Your task to perform on an android device: open app "Life360: Find Family & Friends" (install if not already installed) Image 0: 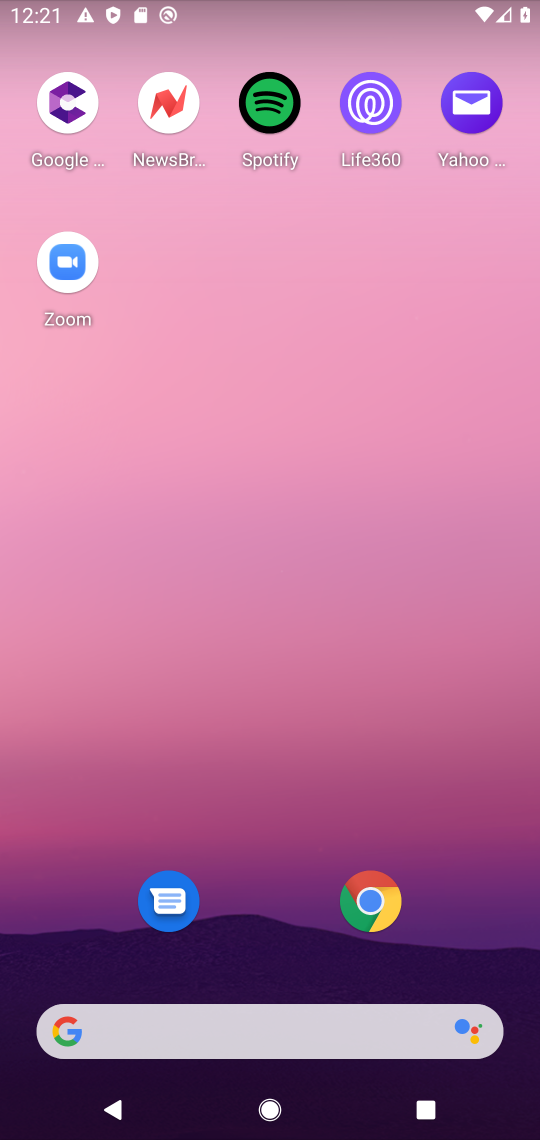
Step 0: drag from (242, 1007) to (315, 156)
Your task to perform on an android device: open app "Life360: Find Family & Friends" (install if not already installed) Image 1: 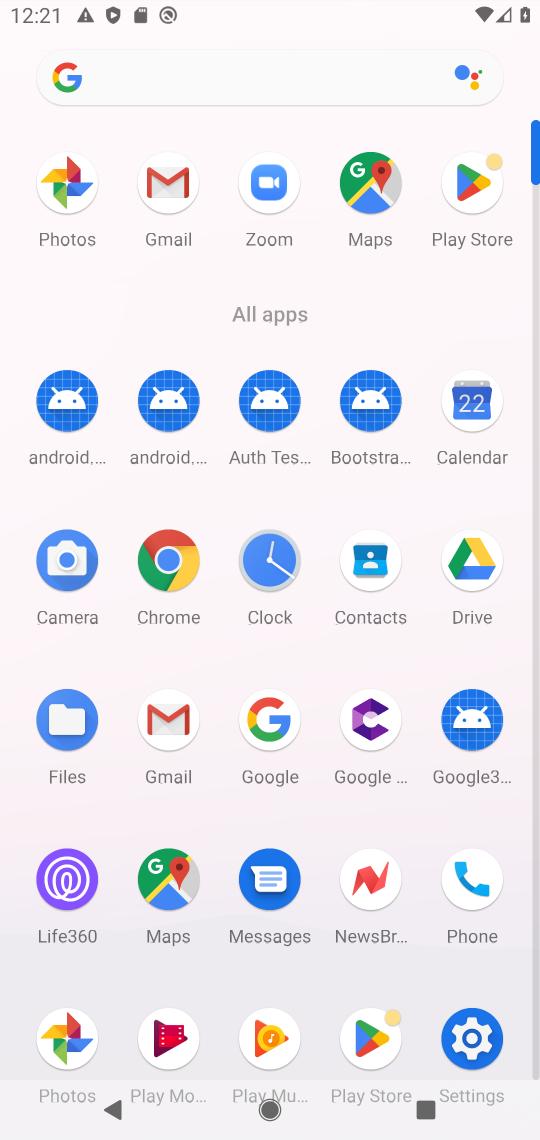
Step 1: click (485, 182)
Your task to perform on an android device: open app "Life360: Find Family & Friends" (install if not already installed) Image 2: 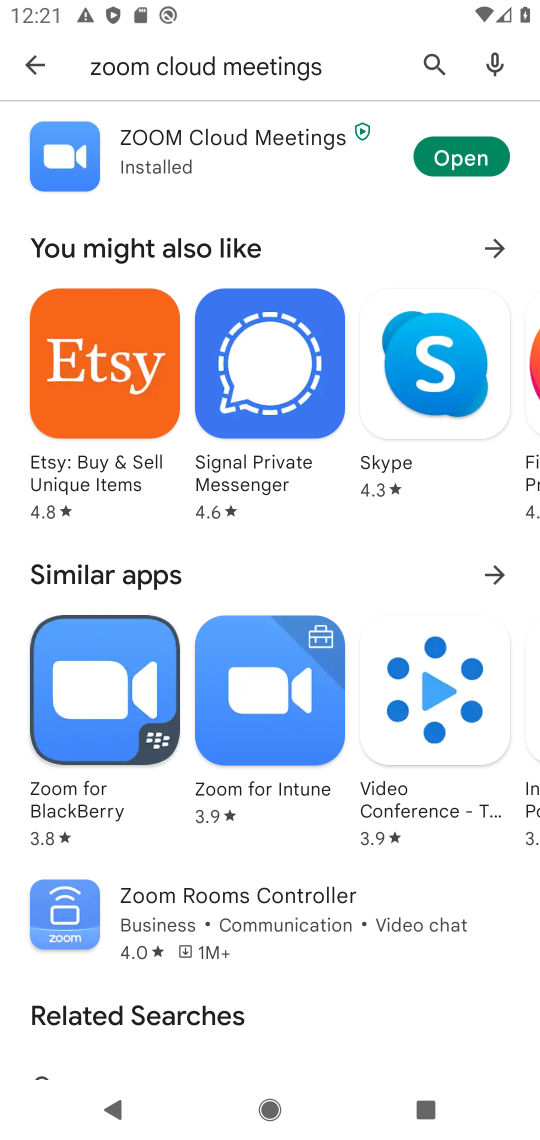
Step 2: click (434, 58)
Your task to perform on an android device: open app "Life360: Find Family & Friends" (install if not already installed) Image 3: 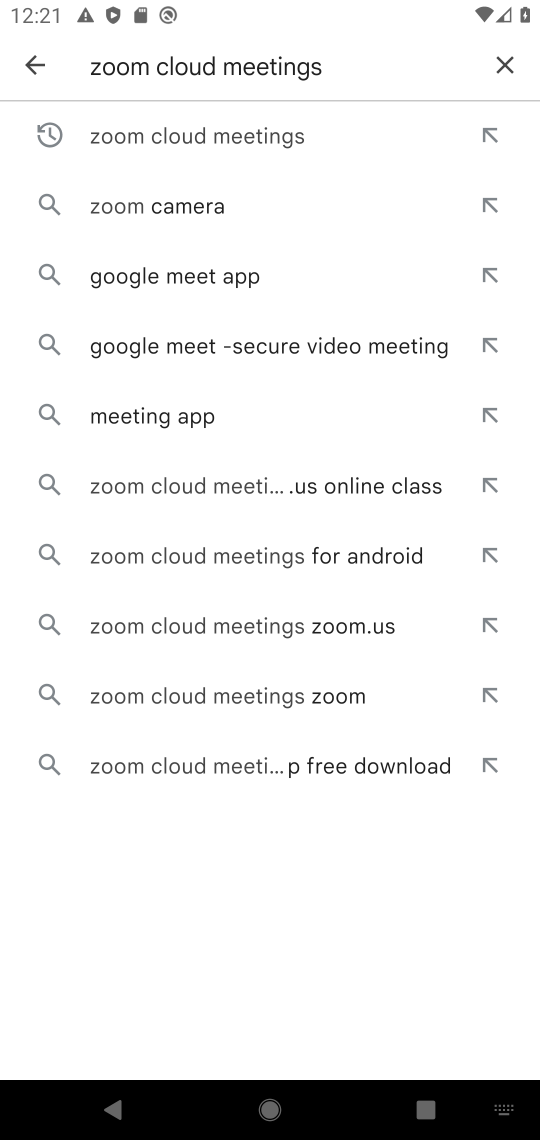
Step 3: click (502, 60)
Your task to perform on an android device: open app "Life360: Find Family & Friends" (install if not already installed) Image 4: 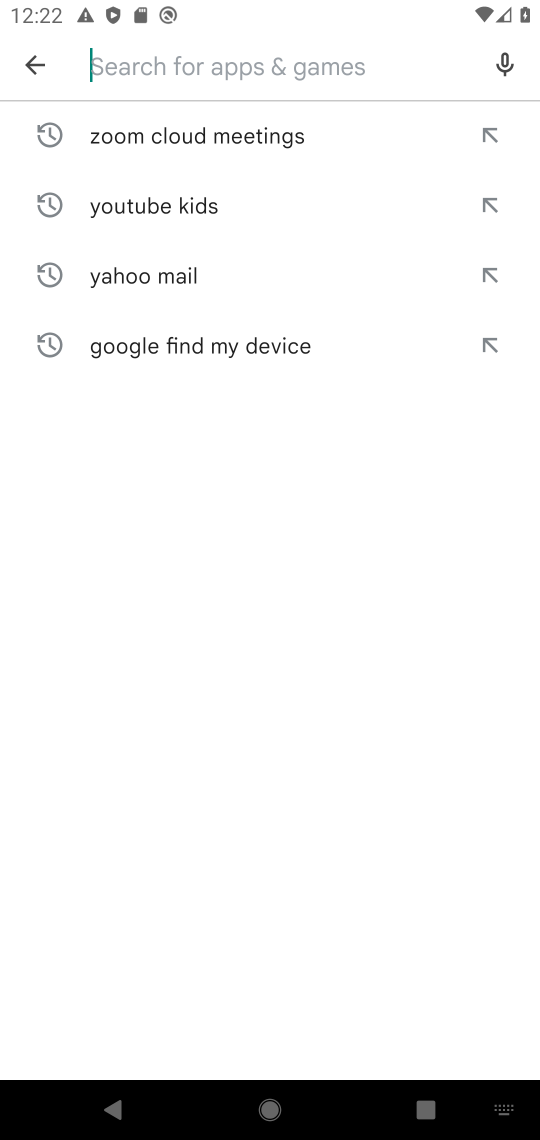
Step 4: type "life360"
Your task to perform on an android device: open app "Life360: Find Family & Friends" (install if not already installed) Image 5: 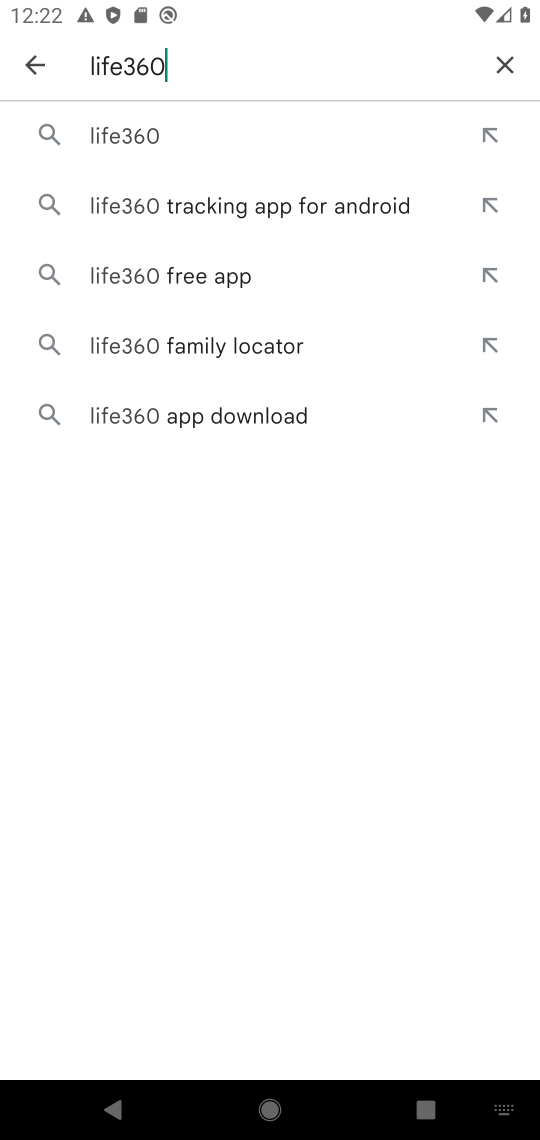
Step 5: click (115, 142)
Your task to perform on an android device: open app "Life360: Find Family & Friends" (install if not already installed) Image 6: 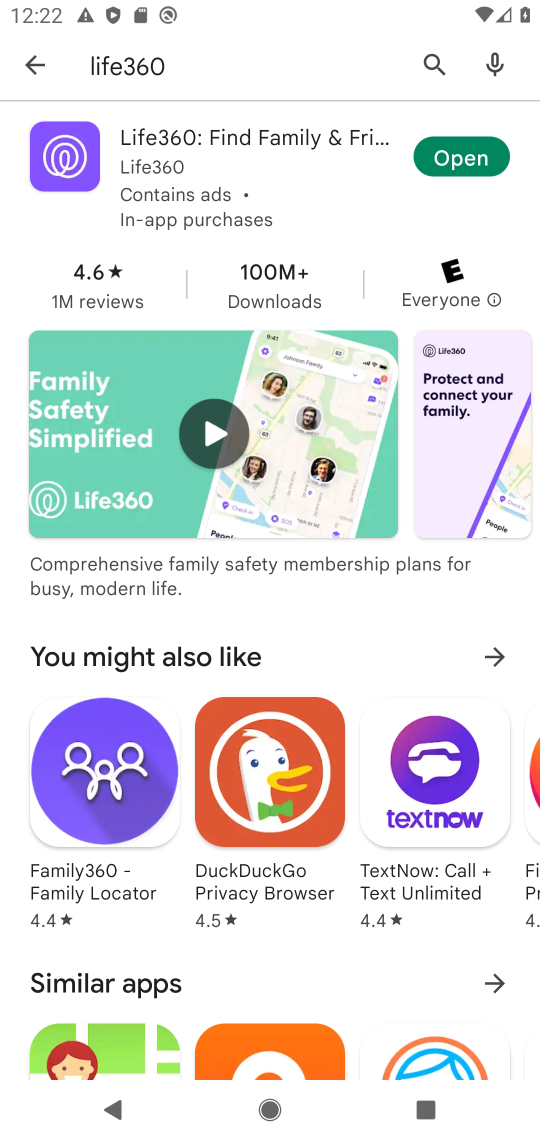
Step 6: click (418, 159)
Your task to perform on an android device: open app "Life360: Find Family & Friends" (install if not already installed) Image 7: 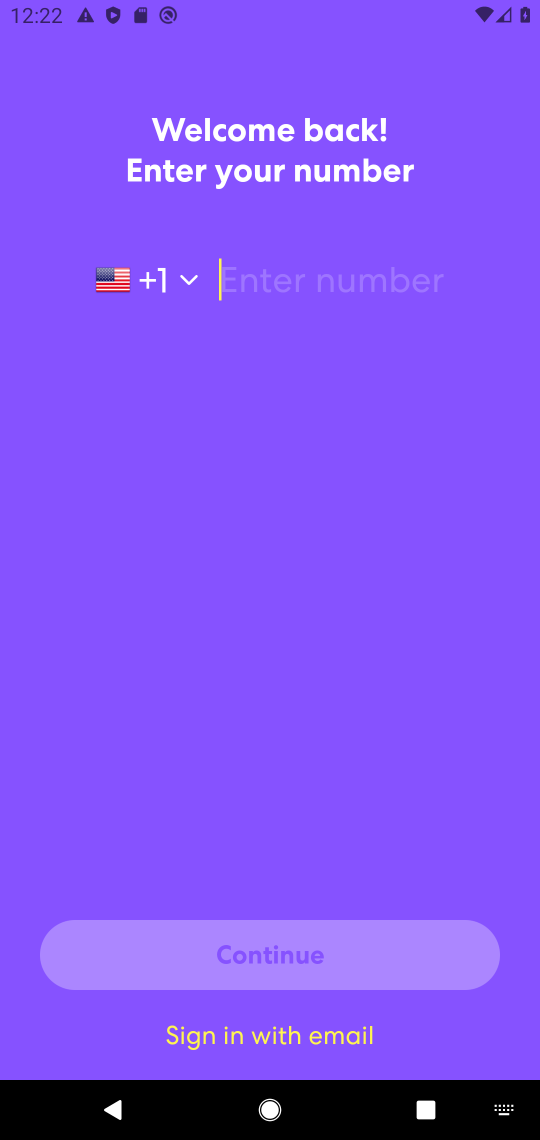
Step 7: task complete